Your task to perform on an android device: turn on javascript in the chrome app Image 0: 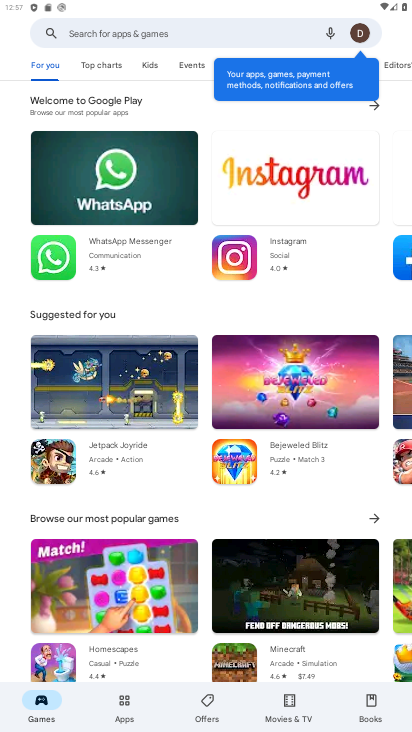
Step 0: press home button
Your task to perform on an android device: turn on javascript in the chrome app Image 1: 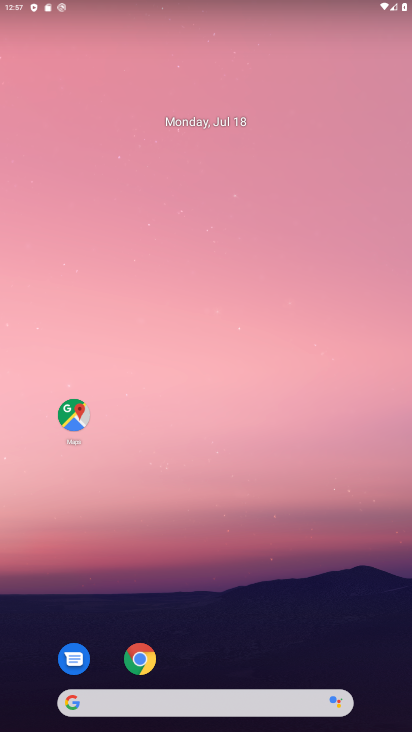
Step 1: click (138, 662)
Your task to perform on an android device: turn on javascript in the chrome app Image 2: 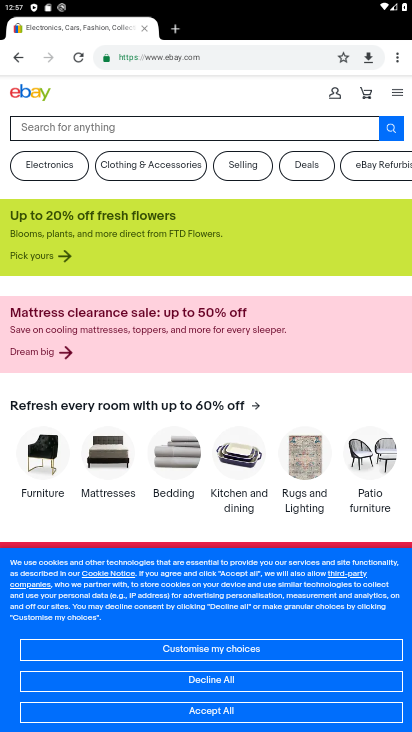
Step 2: drag from (393, 55) to (281, 379)
Your task to perform on an android device: turn on javascript in the chrome app Image 3: 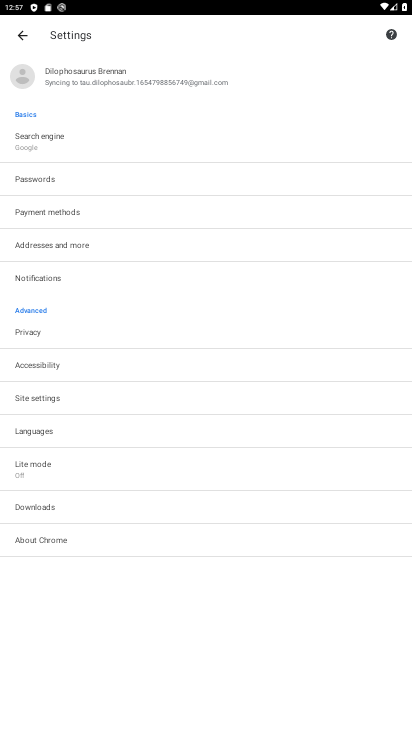
Step 3: click (57, 395)
Your task to perform on an android device: turn on javascript in the chrome app Image 4: 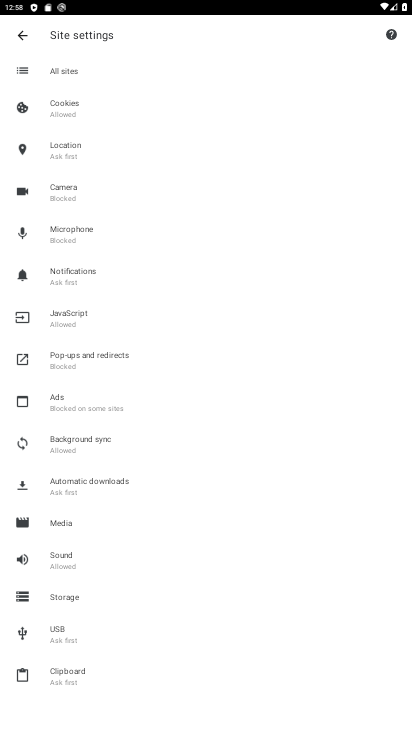
Step 4: click (69, 329)
Your task to perform on an android device: turn on javascript in the chrome app Image 5: 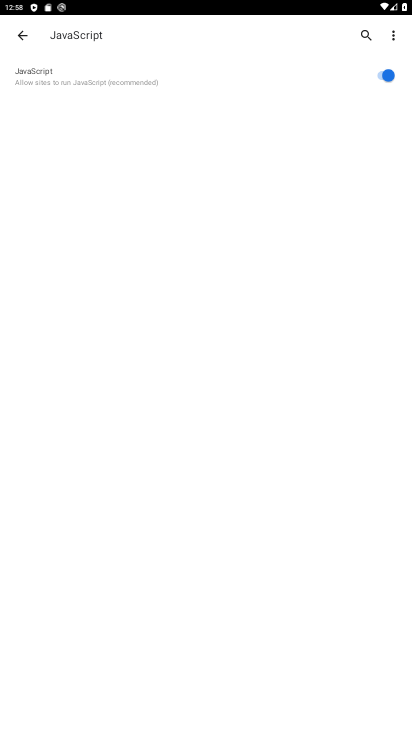
Step 5: task complete